Your task to perform on an android device: change text size in settings app Image 0: 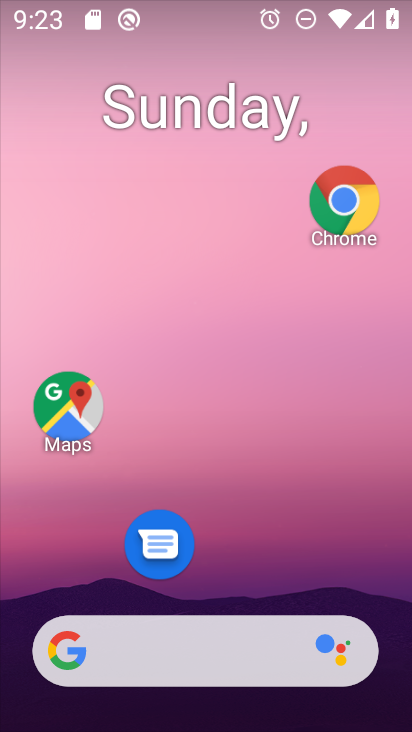
Step 0: drag from (276, 527) to (236, 25)
Your task to perform on an android device: change text size in settings app Image 1: 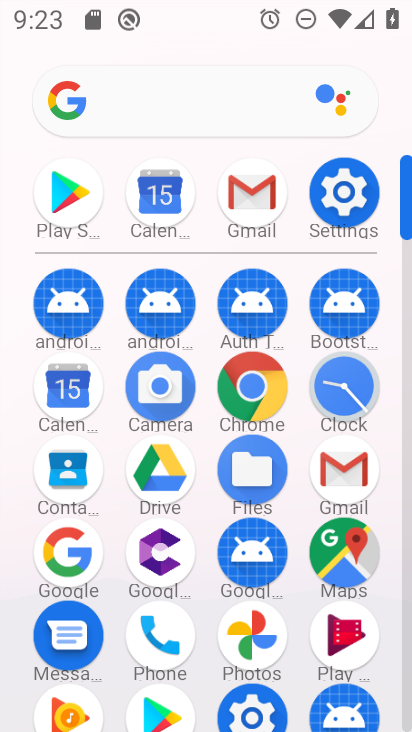
Step 1: click (339, 171)
Your task to perform on an android device: change text size in settings app Image 2: 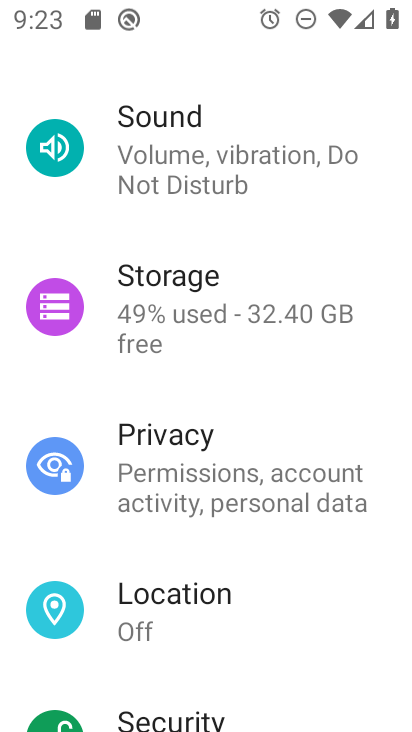
Step 2: drag from (283, 170) to (257, 420)
Your task to perform on an android device: change text size in settings app Image 3: 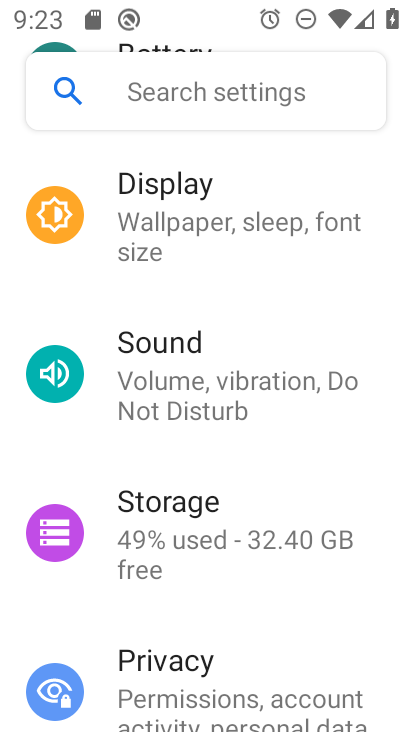
Step 3: click (214, 254)
Your task to perform on an android device: change text size in settings app Image 4: 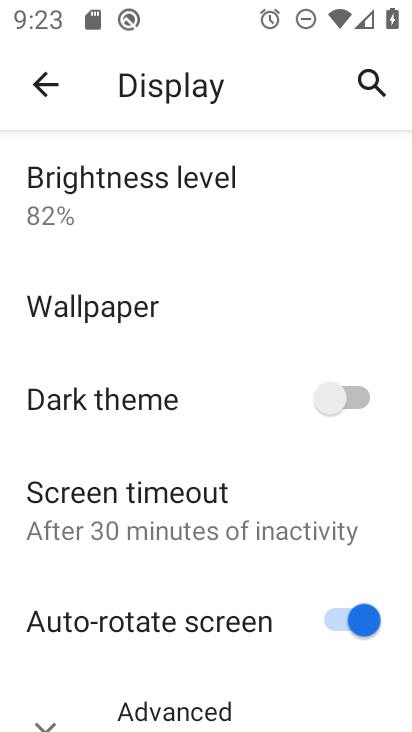
Step 4: drag from (111, 655) to (138, 144)
Your task to perform on an android device: change text size in settings app Image 5: 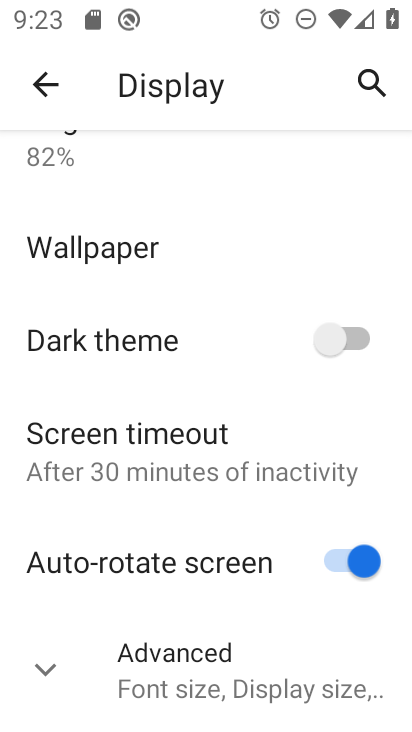
Step 5: click (118, 684)
Your task to perform on an android device: change text size in settings app Image 6: 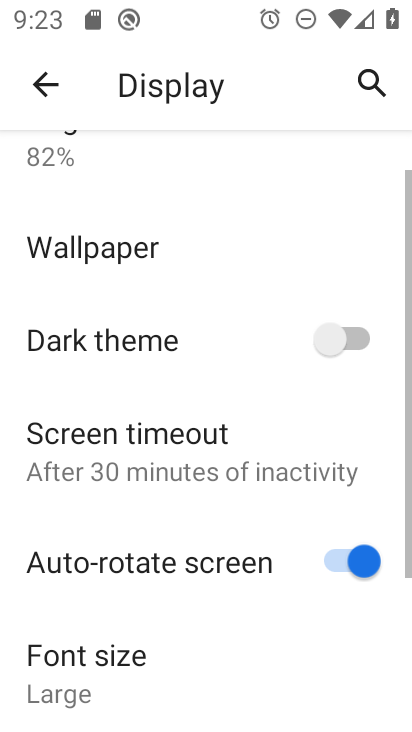
Step 6: click (130, 667)
Your task to perform on an android device: change text size in settings app Image 7: 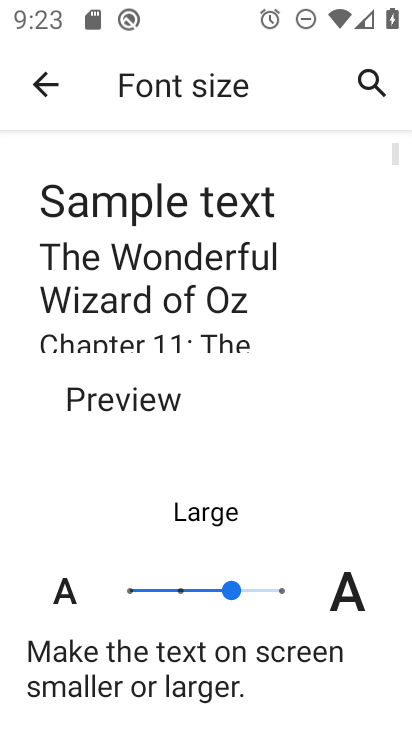
Step 7: click (173, 581)
Your task to perform on an android device: change text size in settings app Image 8: 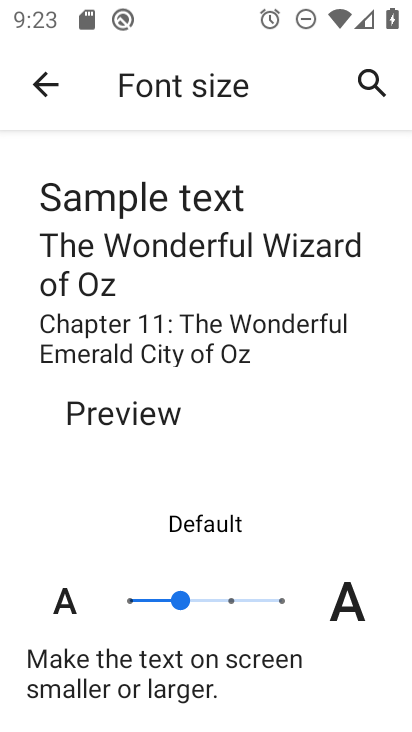
Step 8: task complete